Your task to perform on an android device: Go to Maps Image 0: 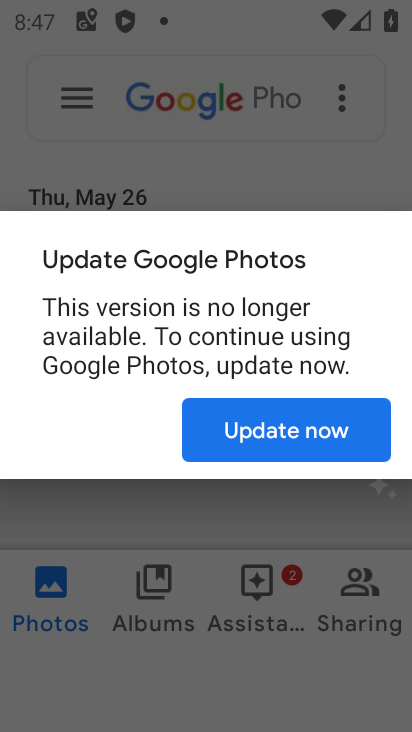
Step 0: press home button
Your task to perform on an android device: Go to Maps Image 1: 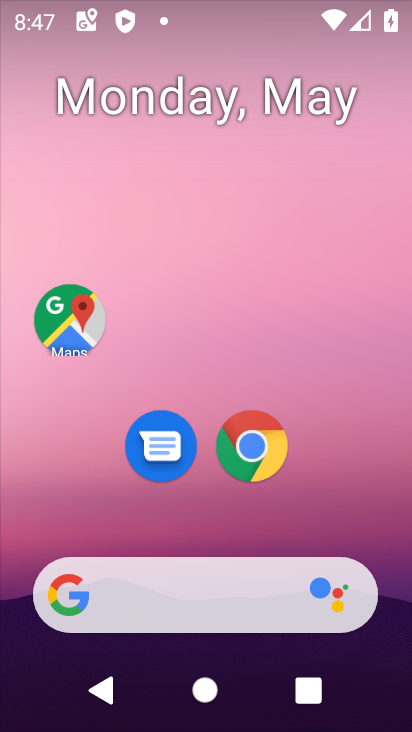
Step 1: click (71, 318)
Your task to perform on an android device: Go to Maps Image 2: 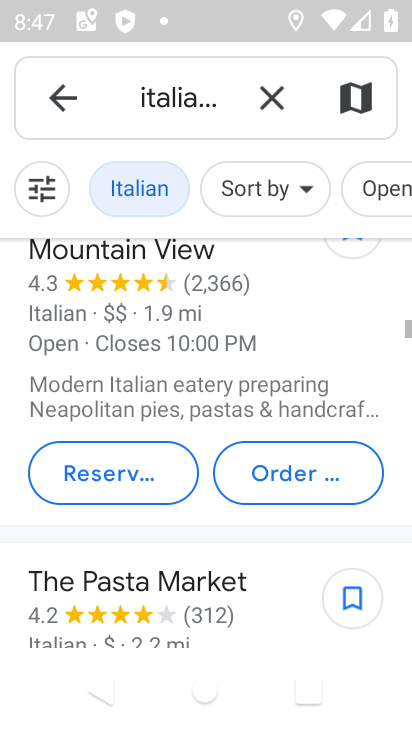
Step 2: click (71, 108)
Your task to perform on an android device: Go to Maps Image 3: 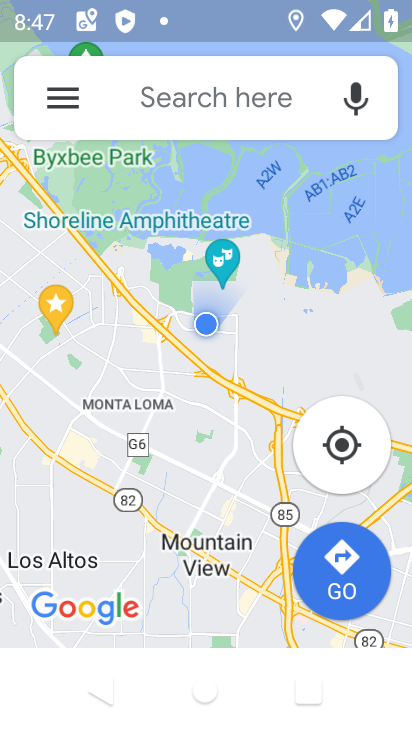
Step 3: task complete